Your task to perform on an android device: empty trash in google photos Image 0: 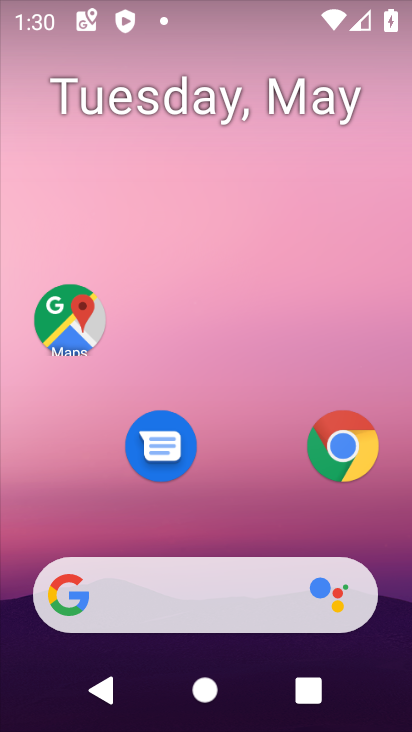
Step 0: drag from (217, 523) to (266, 83)
Your task to perform on an android device: empty trash in google photos Image 1: 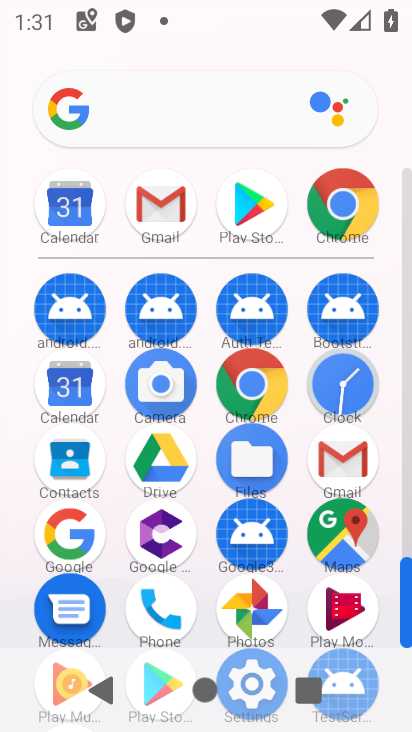
Step 1: click (242, 604)
Your task to perform on an android device: empty trash in google photos Image 2: 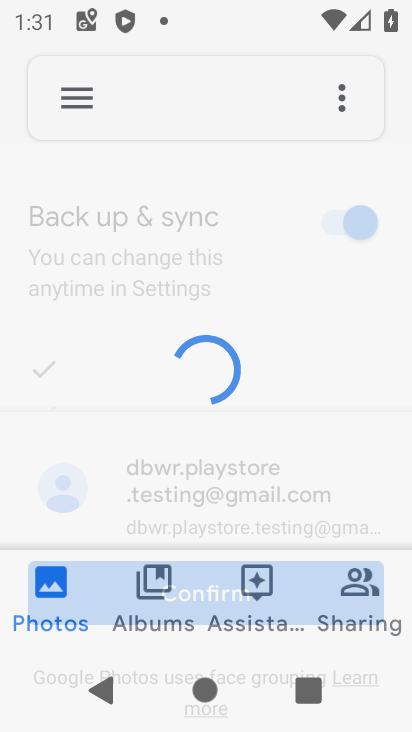
Step 2: click (59, 106)
Your task to perform on an android device: empty trash in google photos Image 3: 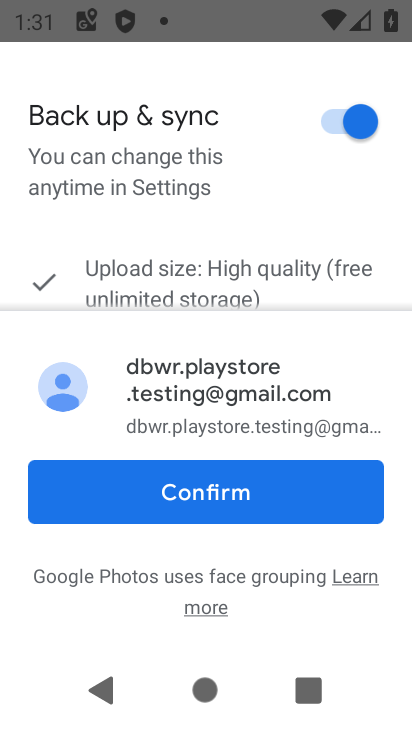
Step 3: click (211, 488)
Your task to perform on an android device: empty trash in google photos Image 4: 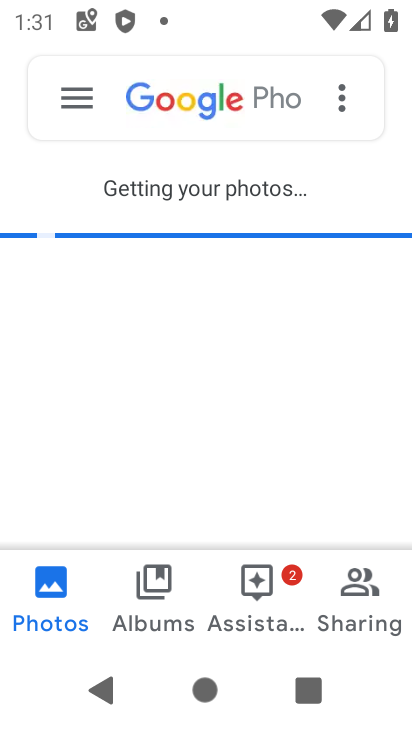
Step 4: click (76, 104)
Your task to perform on an android device: empty trash in google photos Image 5: 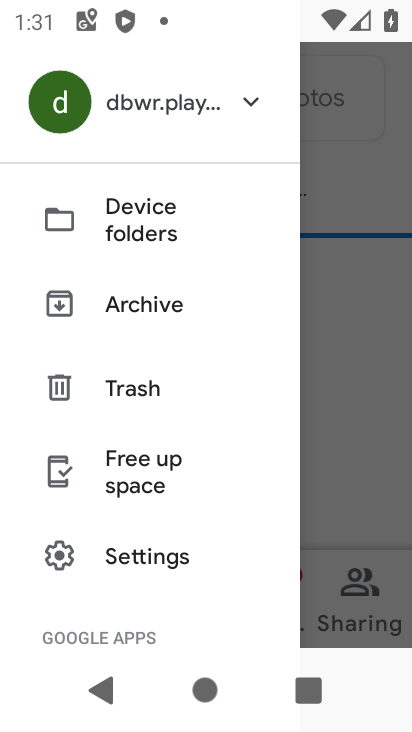
Step 5: click (122, 367)
Your task to perform on an android device: empty trash in google photos Image 6: 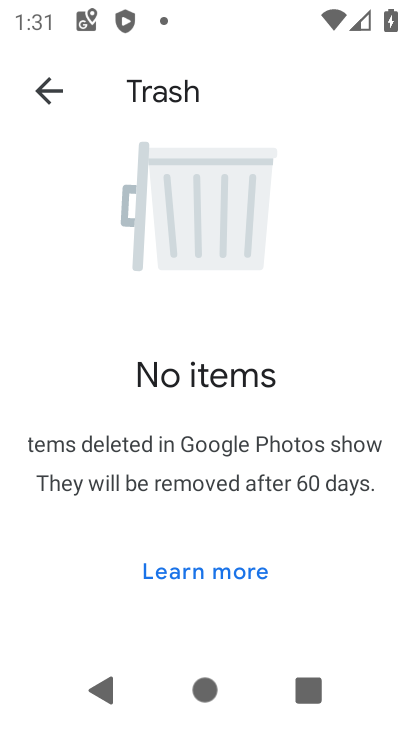
Step 6: task complete